Your task to perform on an android device: turn off improve location accuracy Image 0: 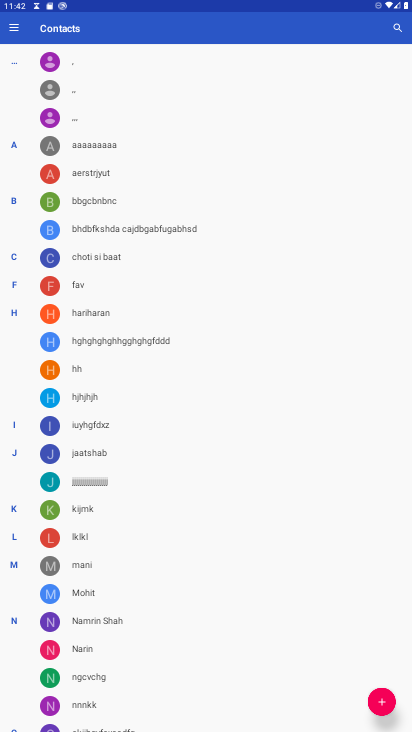
Step 0: press home button
Your task to perform on an android device: turn off improve location accuracy Image 1: 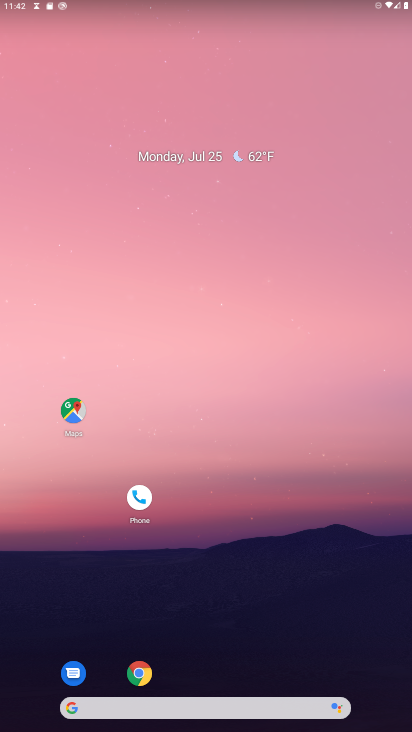
Step 1: drag from (239, 612) to (289, 0)
Your task to perform on an android device: turn off improve location accuracy Image 2: 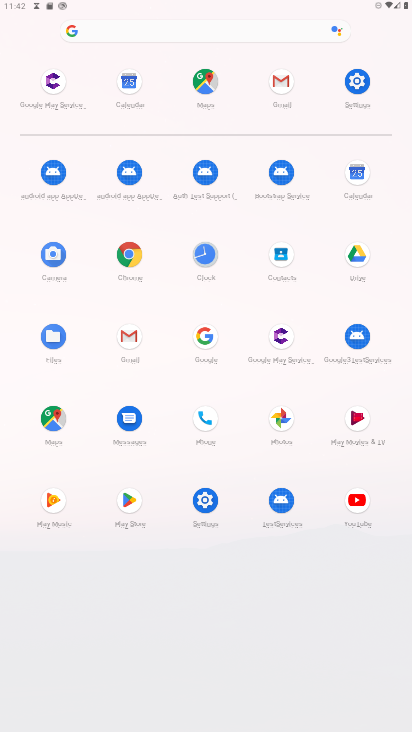
Step 2: click (356, 80)
Your task to perform on an android device: turn off improve location accuracy Image 3: 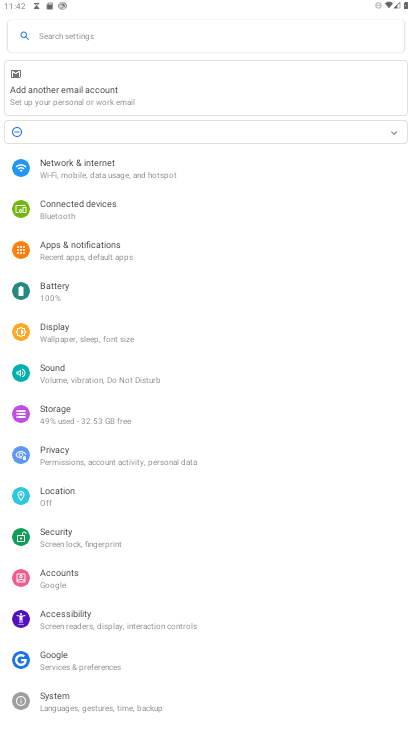
Step 3: click (52, 502)
Your task to perform on an android device: turn off improve location accuracy Image 4: 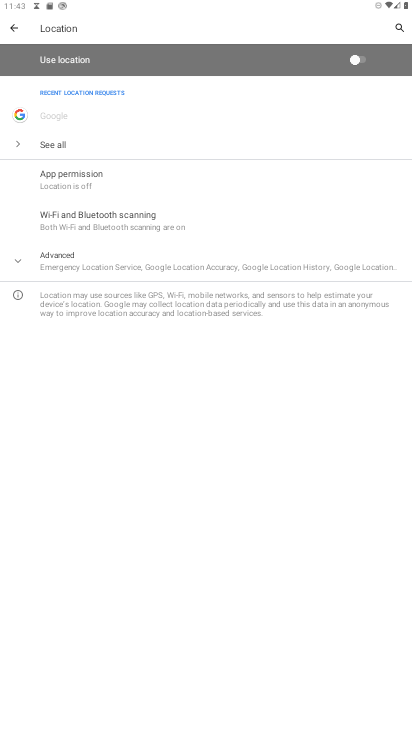
Step 4: click (20, 257)
Your task to perform on an android device: turn off improve location accuracy Image 5: 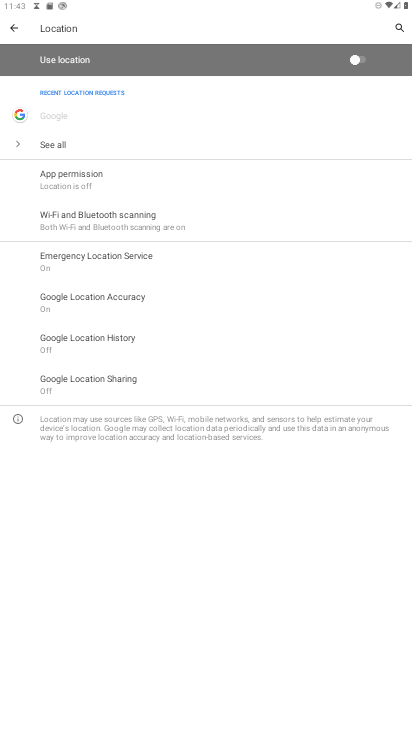
Step 5: click (62, 303)
Your task to perform on an android device: turn off improve location accuracy Image 6: 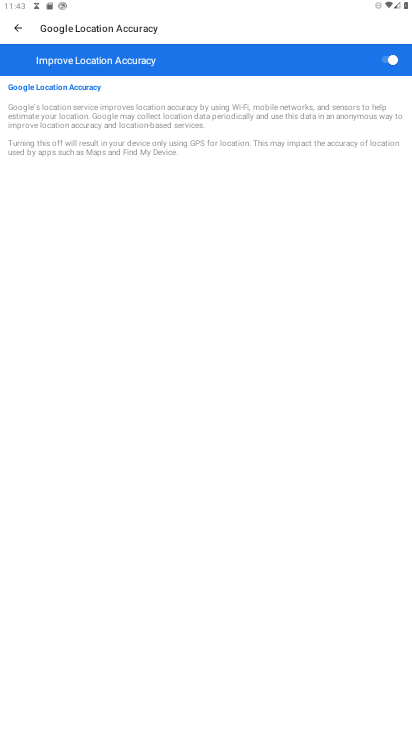
Step 6: click (384, 60)
Your task to perform on an android device: turn off improve location accuracy Image 7: 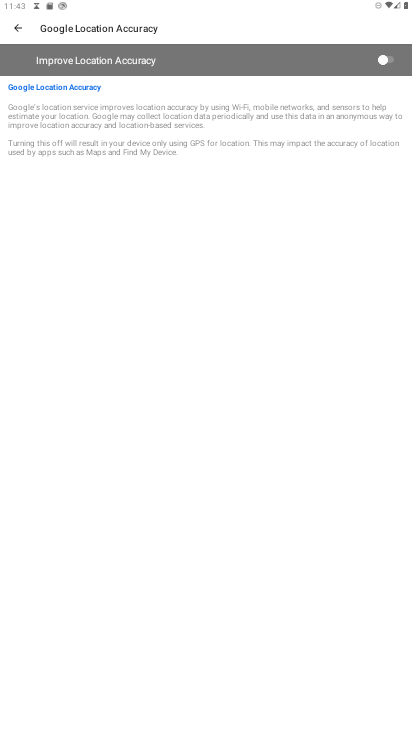
Step 7: task complete